Your task to perform on an android device: clear all cookies in the chrome app Image 0: 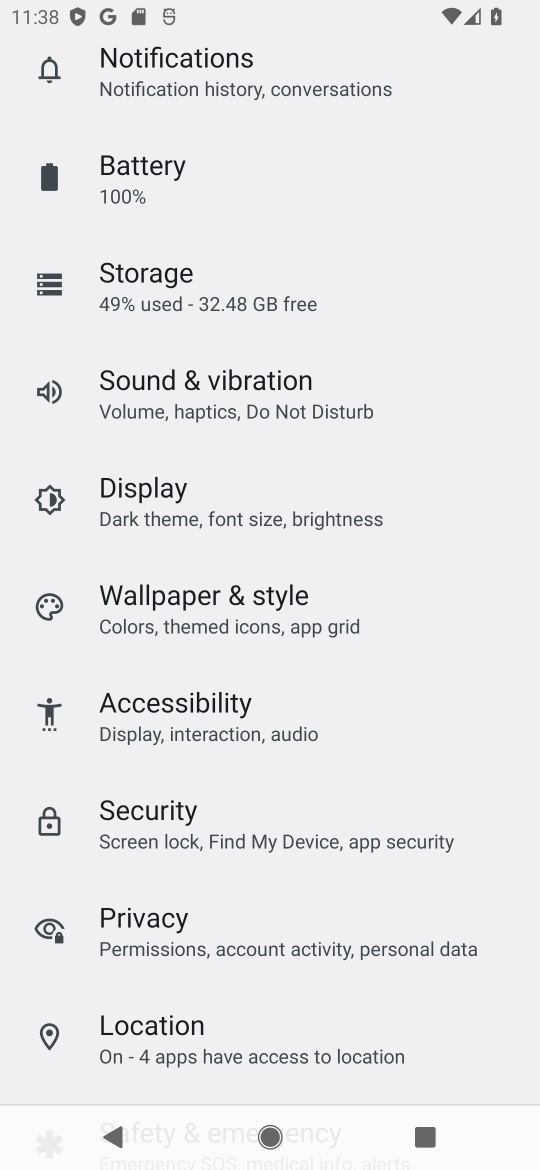
Step 0: press home button
Your task to perform on an android device: clear all cookies in the chrome app Image 1: 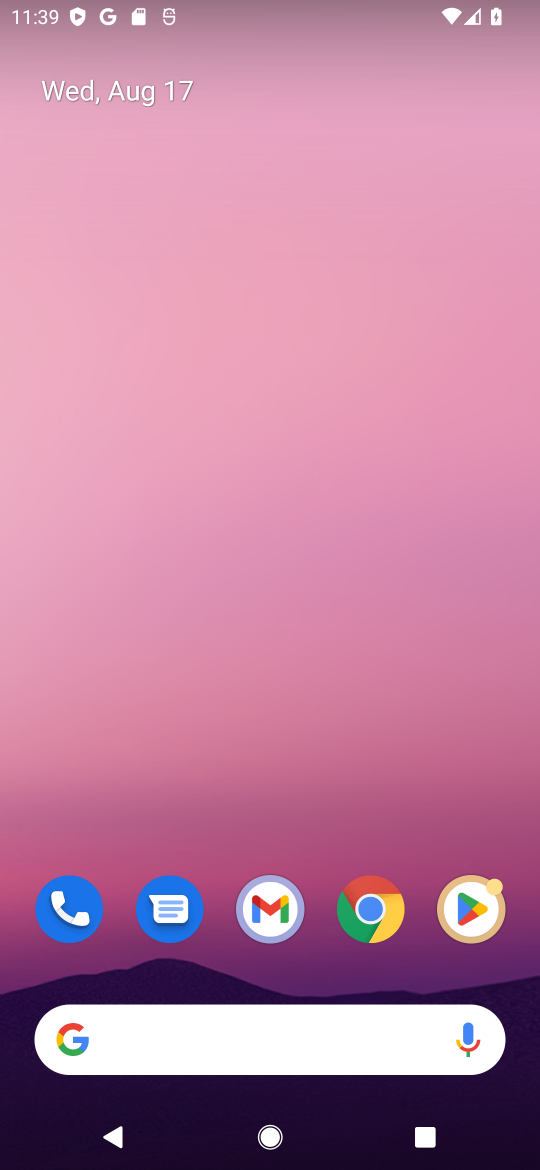
Step 1: click (368, 910)
Your task to perform on an android device: clear all cookies in the chrome app Image 2: 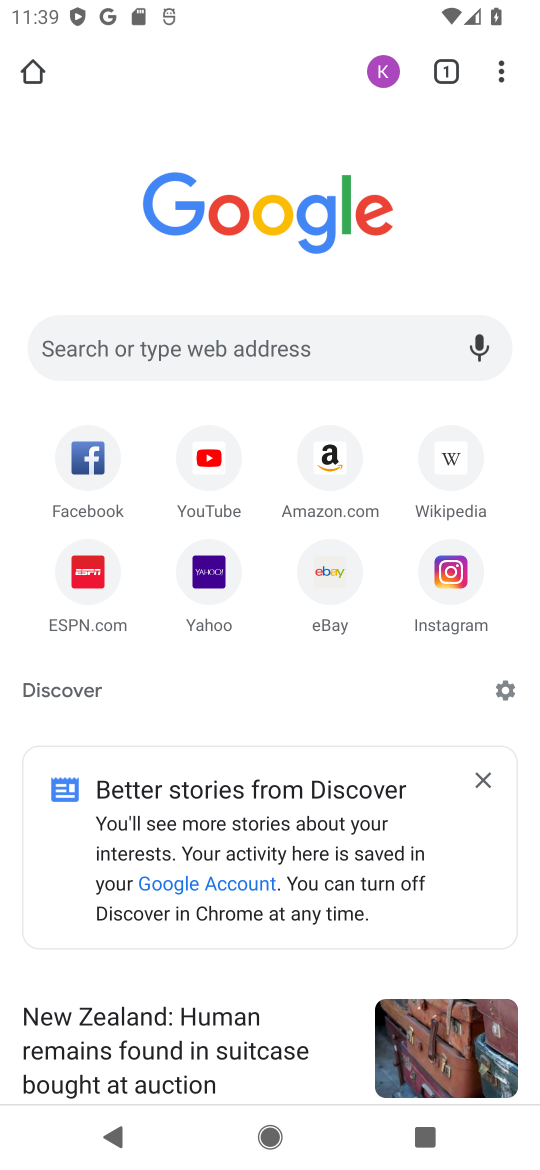
Step 2: click (497, 70)
Your task to perform on an android device: clear all cookies in the chrome app Image 3: 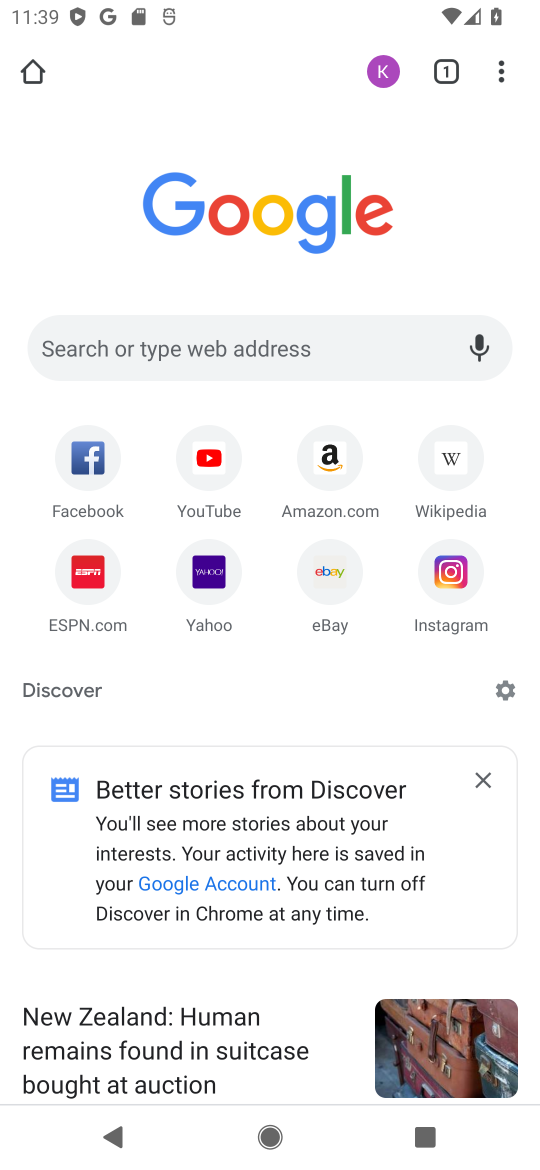
Step 3: click (480, 67)
Your task to perform on an android device: clear all cookies in the chrome app Image 4: 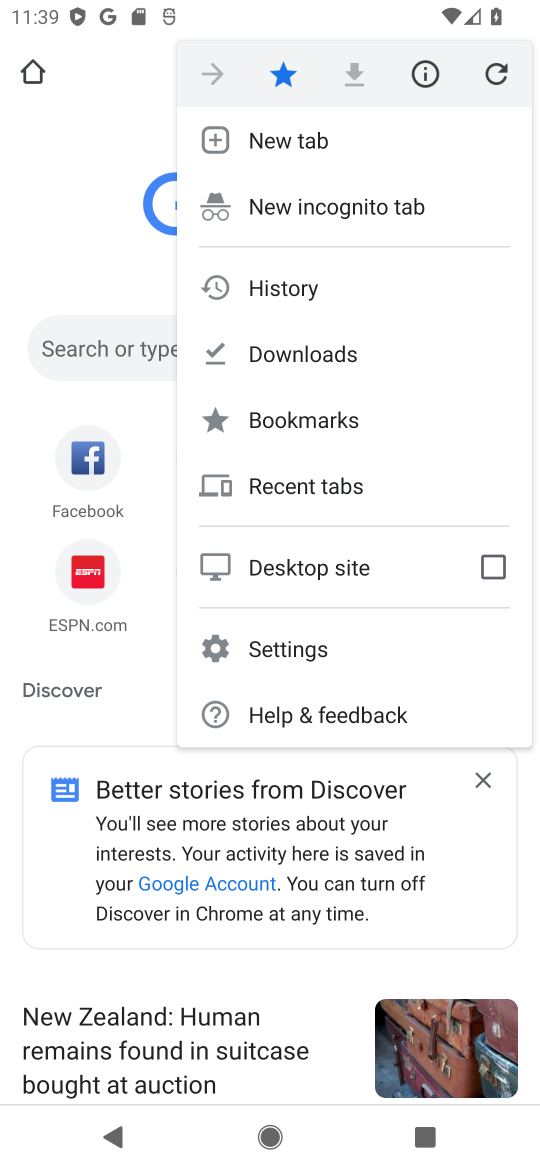
Step 4: click (284, 282)
Your task to perform on an android device: clear all cookies in the chrome app Image 5: 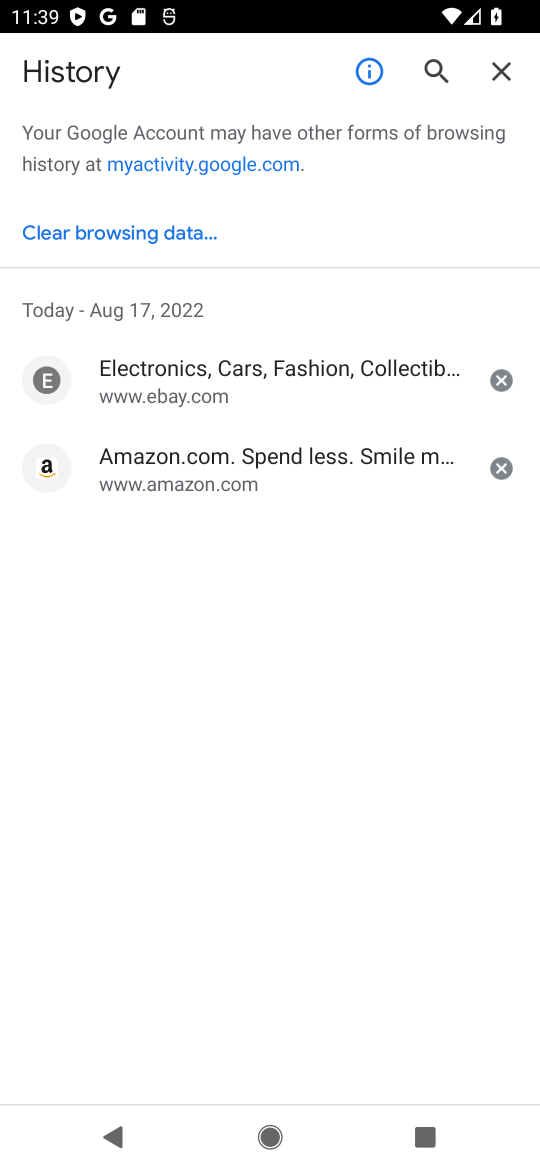
Step 5: click (136, 223)
Your task to perform on an android device: clear all cookies in the chrome app Image 6: 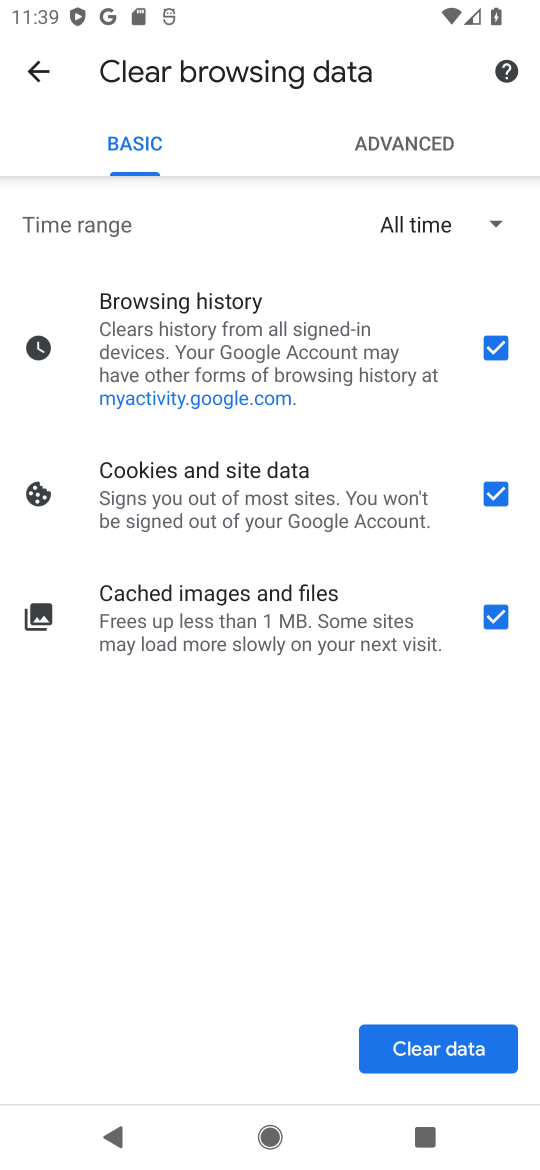
Step 6: click (496, 625)
Your task to perform on an android device: clear all cookies in the chrome app Image 7: 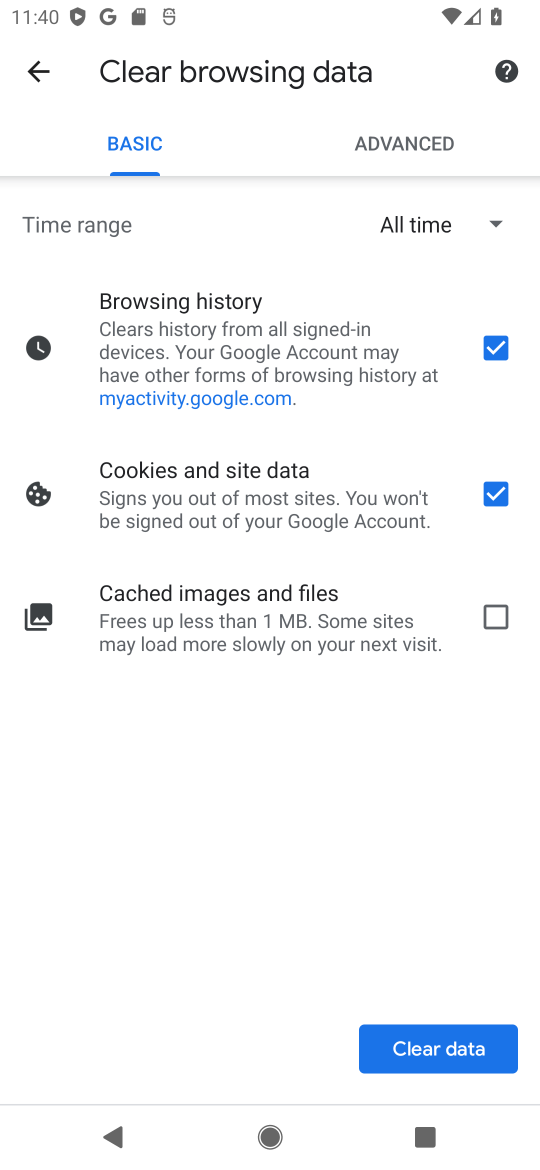
Step 7: click (486, 344)
Your task to perform on an android device: clear all cookies in the chrome app Image 8: 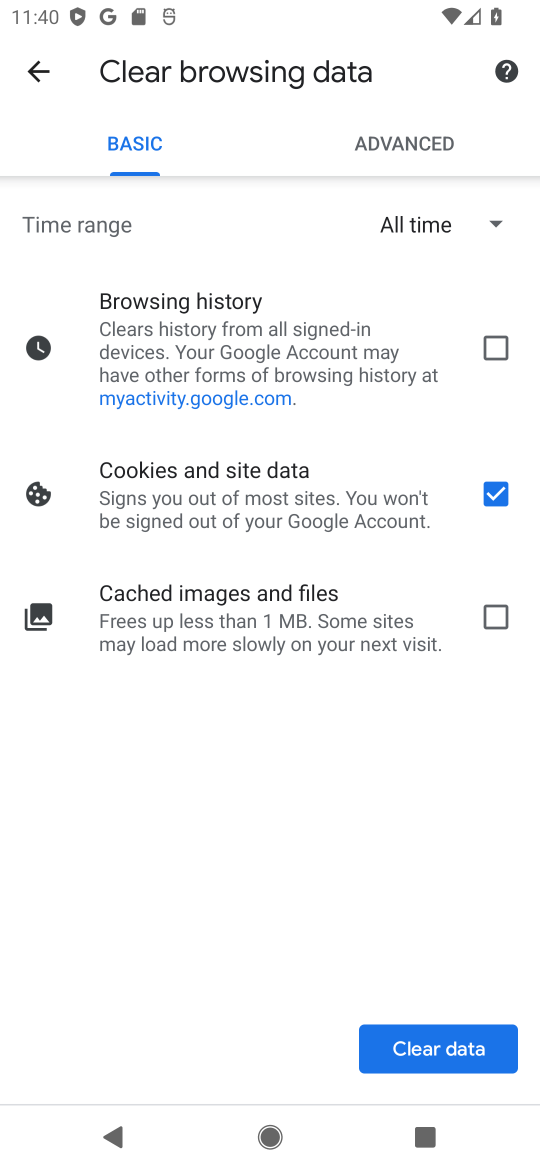
Step 8: click (433, 1045)
Your task to perform on an android device: clear all cookies in the chrome app Image 9: 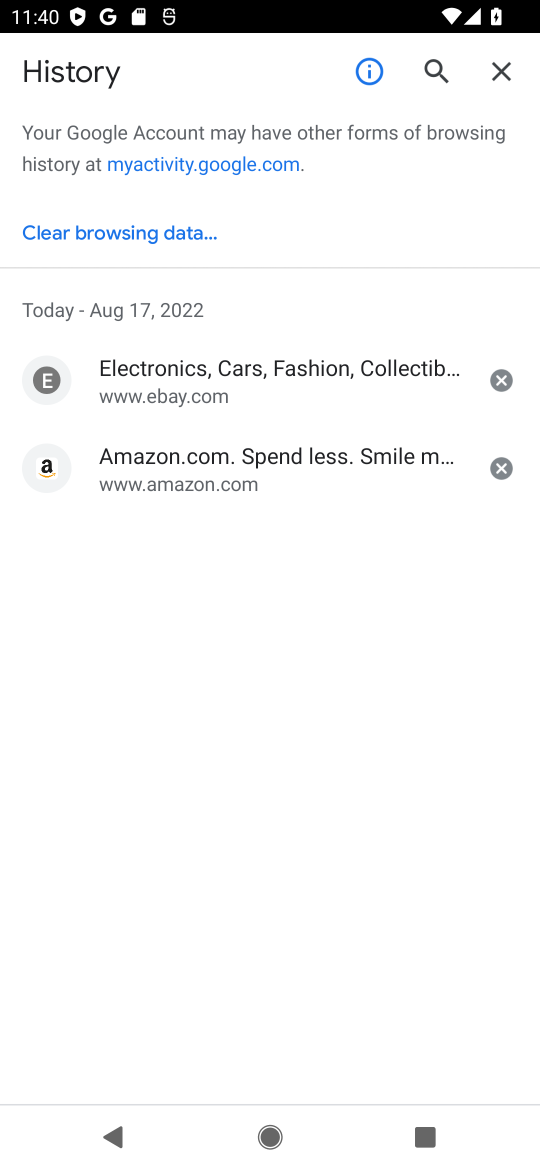
Step 9: task complete